Your task to perform on an android device: Go to Maps Image 0: 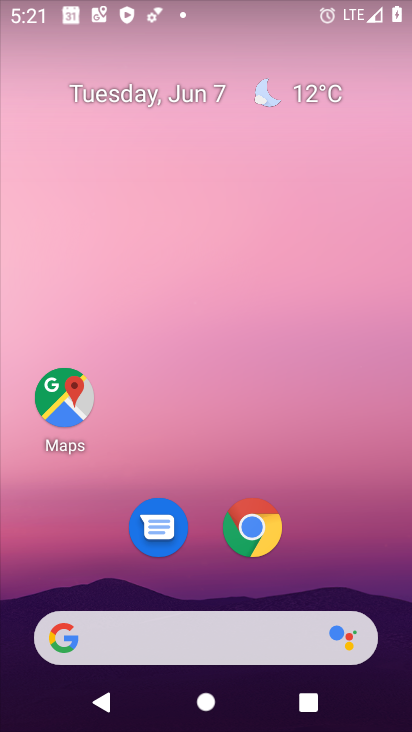
Step 0: click (65, 396)
Your task to perform on an android device: Go to Maps Image 1: 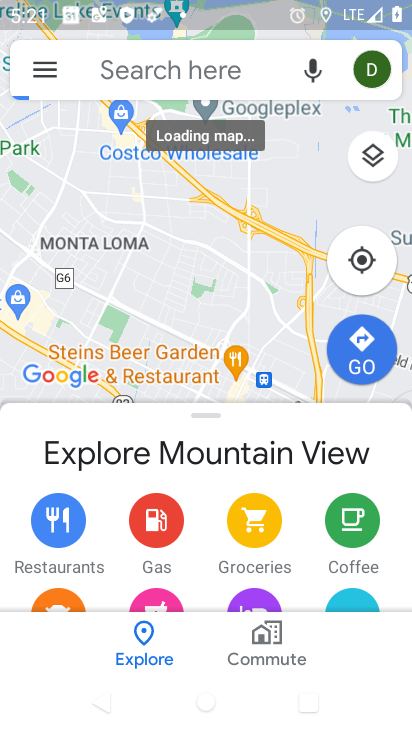
Step 1: task complete